Your task to perform on an android device: Add rayovac triple a to the cart on bestbuy.com Image 0: 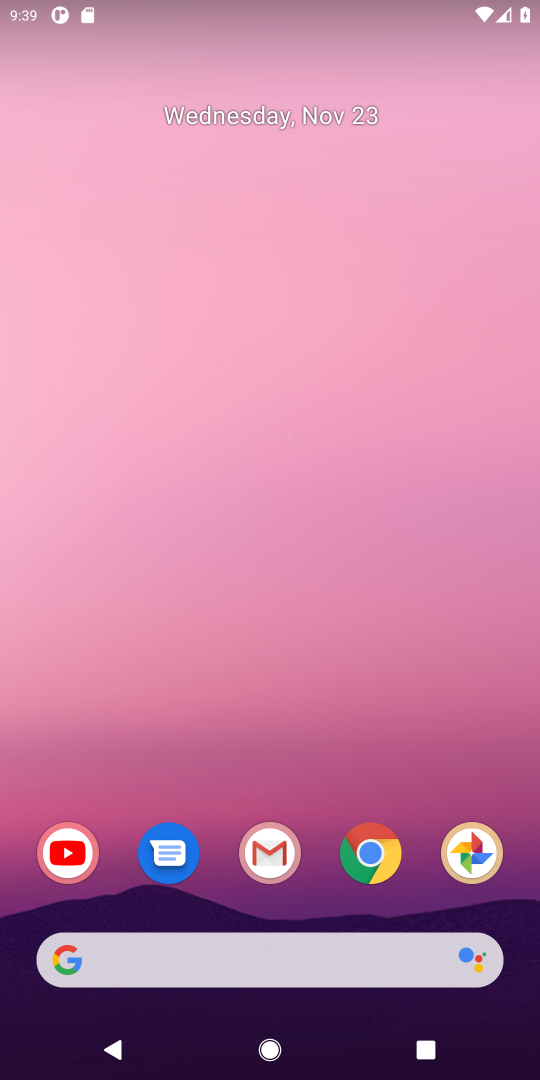
Step 0: click (375, 860)
Your task to perform on an android device: Add rayovac triple a to the cart on bestbuy.com Image 1: 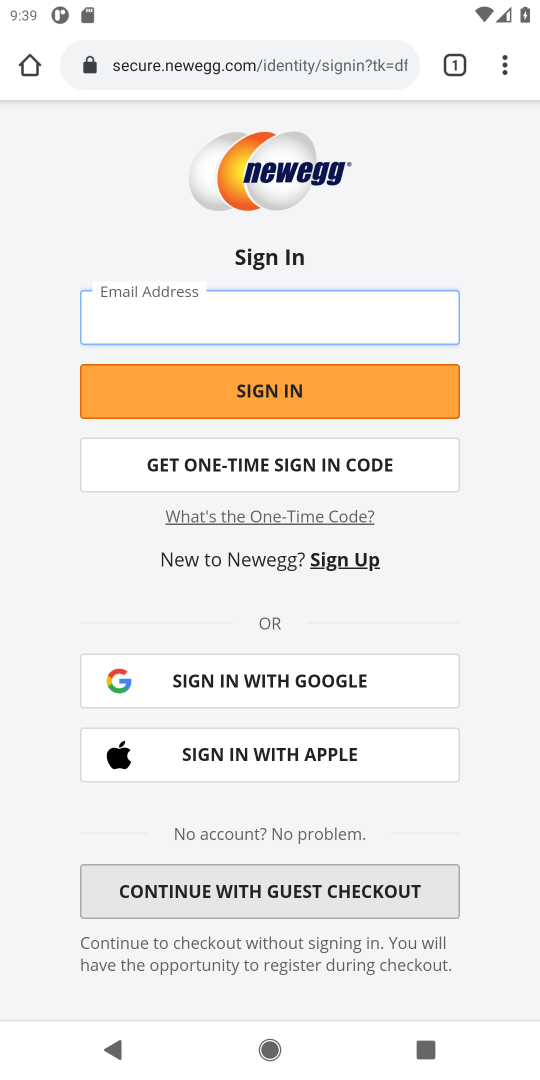
Step 1: click (208, 66)
Your task to perform on an android device: Add rayovac triple a to the cart on bestbuy.com Image 2: 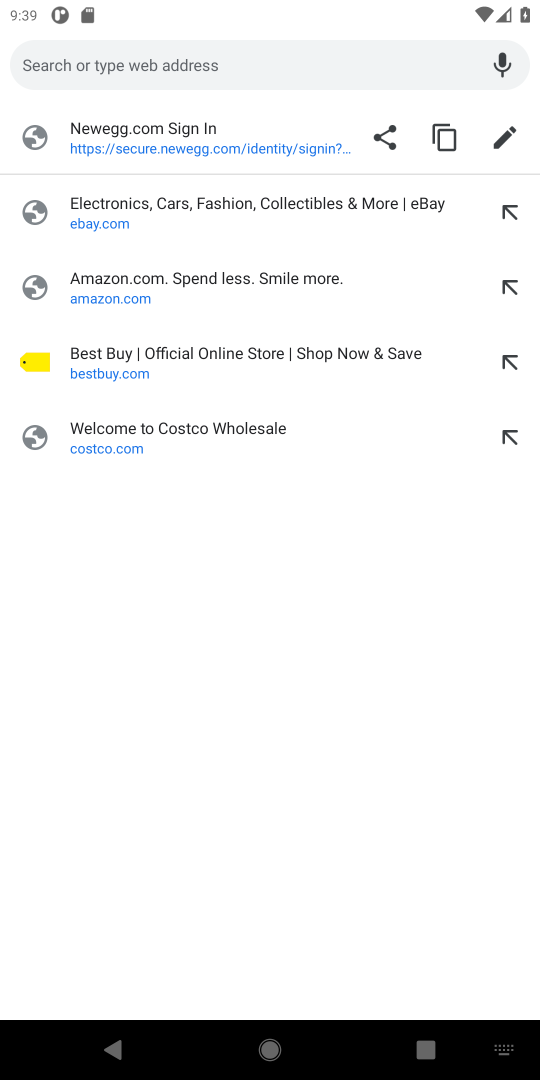
Step 2: click (92, 357)
Your task to perform on an android device: Add rayovac triple a to the cart on bestbuy.com Image 3: 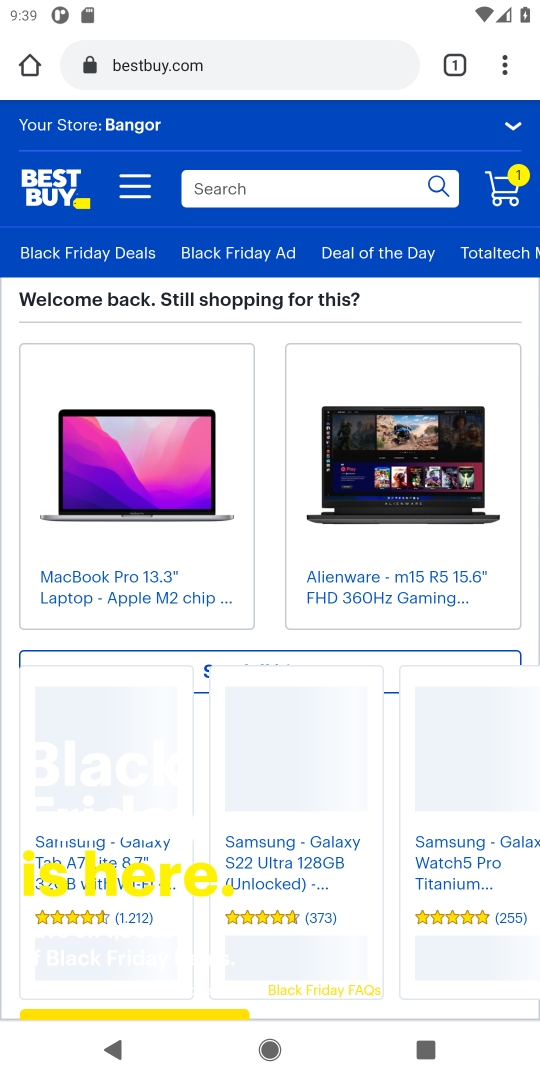
Step 3: click (317, 186)
Your task to perform on an android device: Add rayovac triple a to the cart on bestbuy.com Image 4: 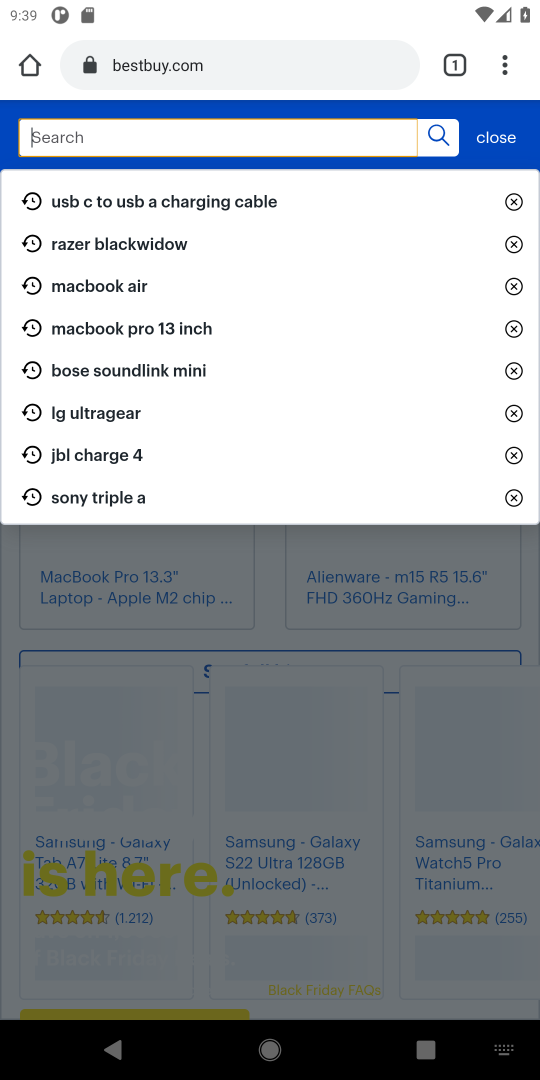
Step 4: type "rayovac triple a"
Your task to perform on an android device: Add rayovac triple a to the cart on bestbuy.com Image 5: 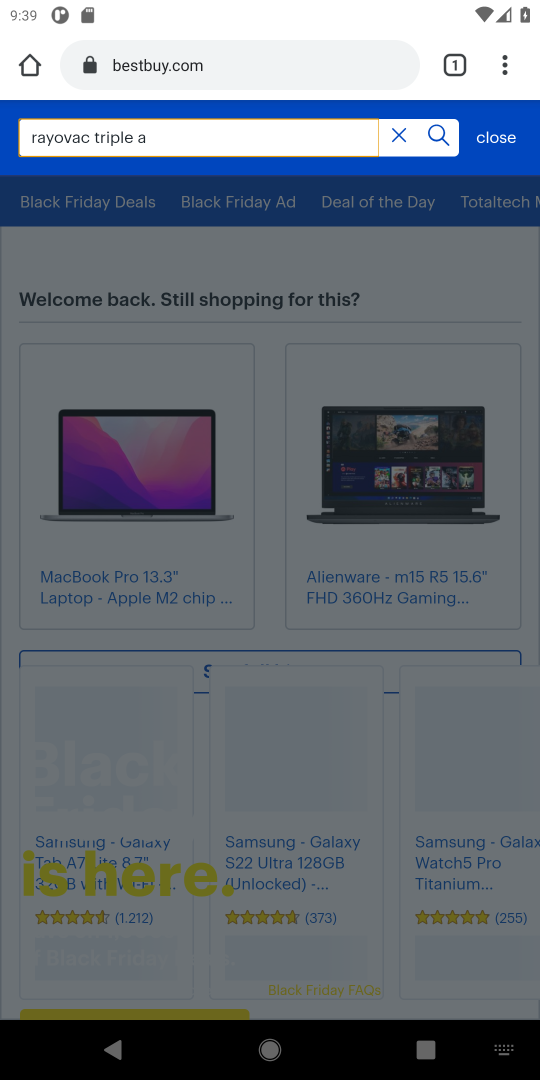
Step 5: click (435, 137)
Your task to perform on an android device: Add rayovac triple a to the cart on bestbuy.com Image 6: 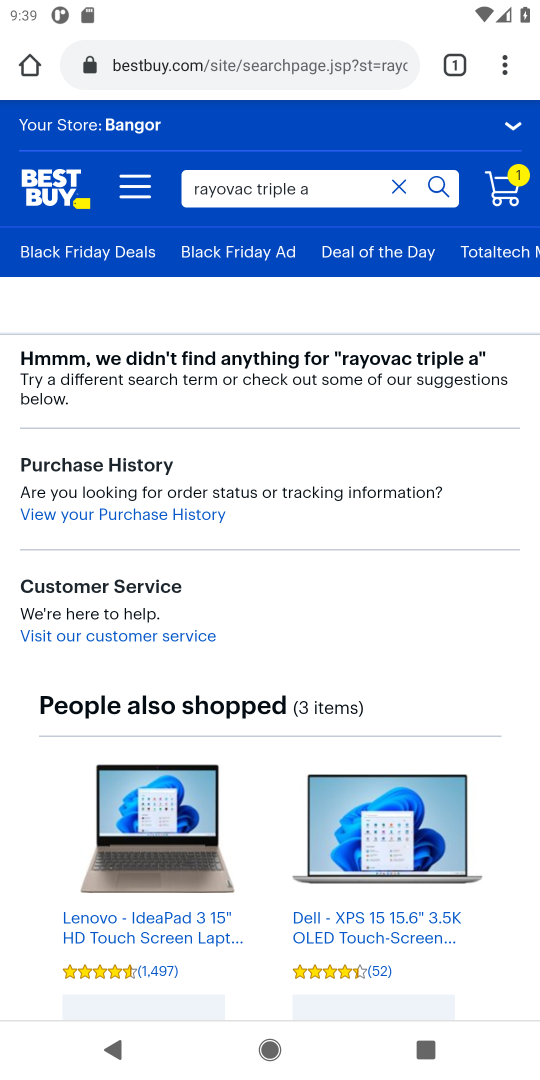
Step 6: task complete